Your task to perform on an android device: find which apps use the phone's location Image 0: 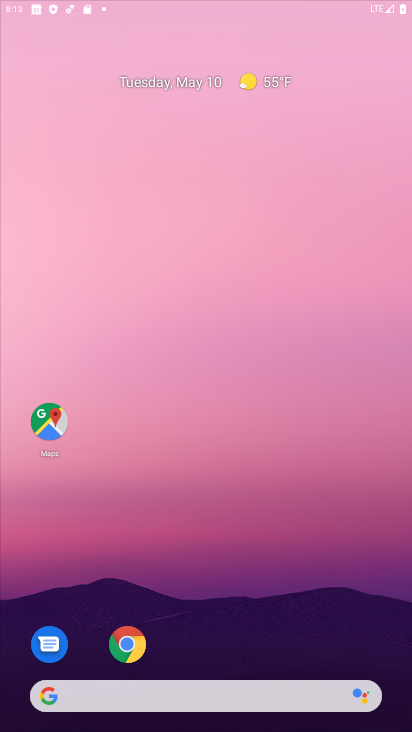
Step 0: drag from (244, 657) to (266, 36)
Your task to perform on an android device: find which apps use the phone's location Image 1: 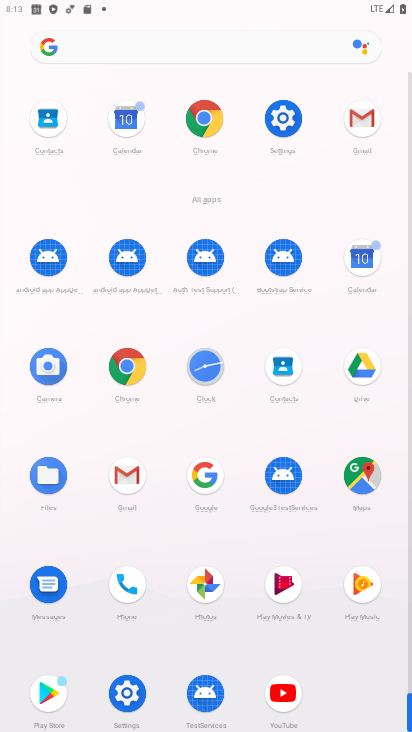
Step 1: click (289, 114)
Your task to perform on an android device: find which apps use the phone's location Image 2: 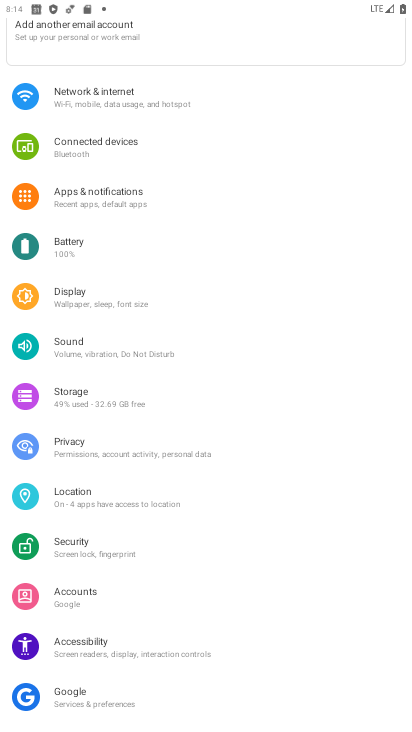
Step 2: drag from (121, 479) to (142, 322)
Your task to perform on an android device: find which apps use the phone's location Image 3: 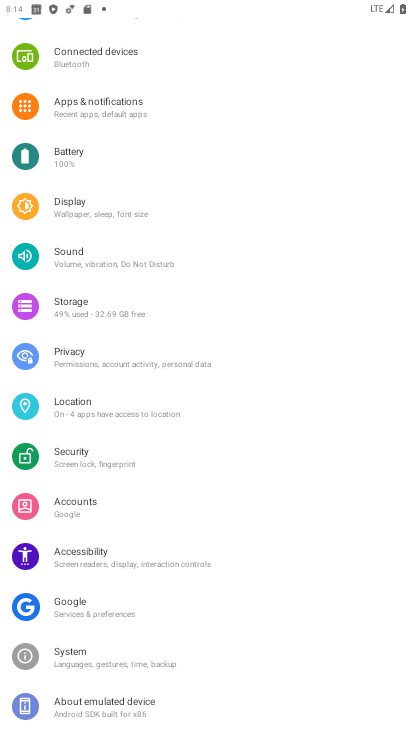
Step 3: click (136, 415)
Your task to perform on an android device: find which apps use the phone's location Image 4: 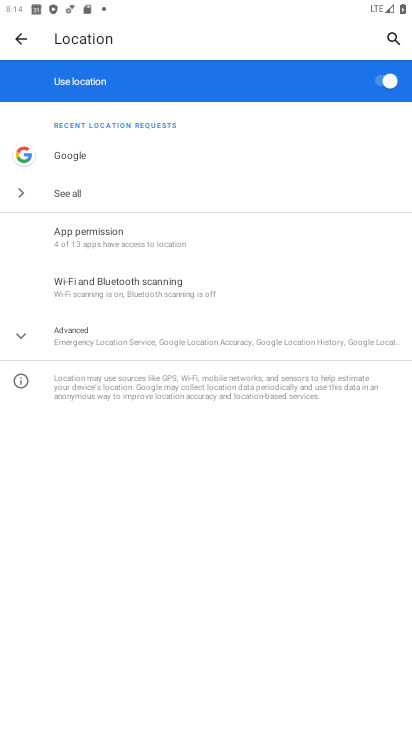
Step 4: click (128, 342)
Your task to perform on an android device: find which apps use the phone's location Image 5: 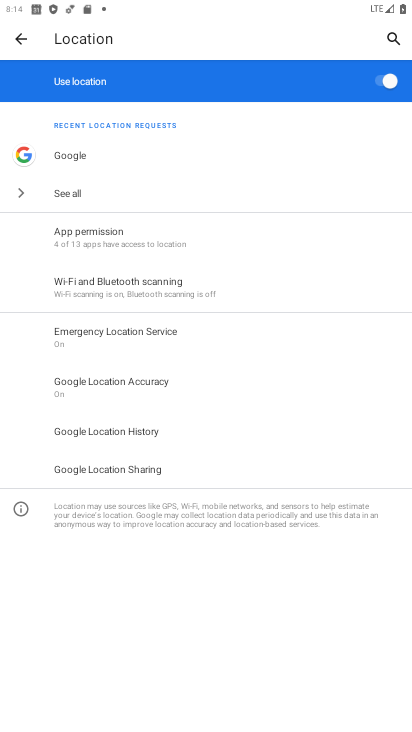
Step 5: click (116, 241)
Your task to perform on an android device: find which apps use the phone's location Image 6: 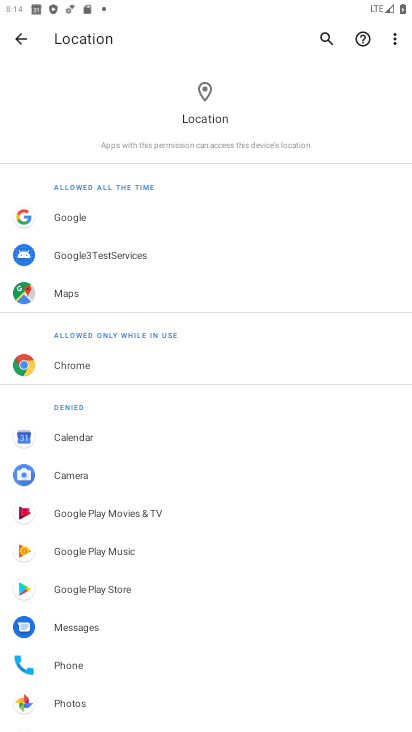
Step 6: task complete